Your task to perform on an android device: refresh tabs in the chrome app Image 0: 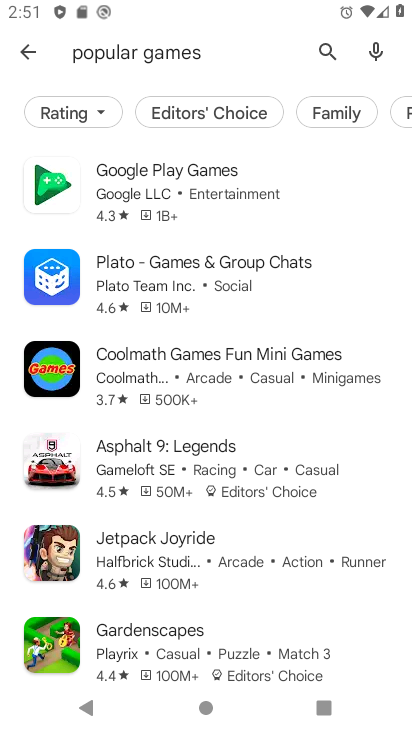
Step 0: press home button
Your task to perform on an android device: refresh tabs in the chrome app Image 1: 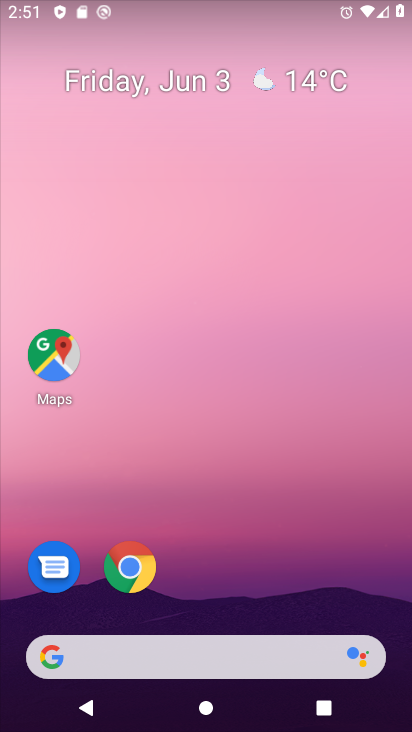
Step 1: drag from (221, 694) to (207, 181)
Your task to perform on an android device: refresh tabs in the chrome app Image 2: 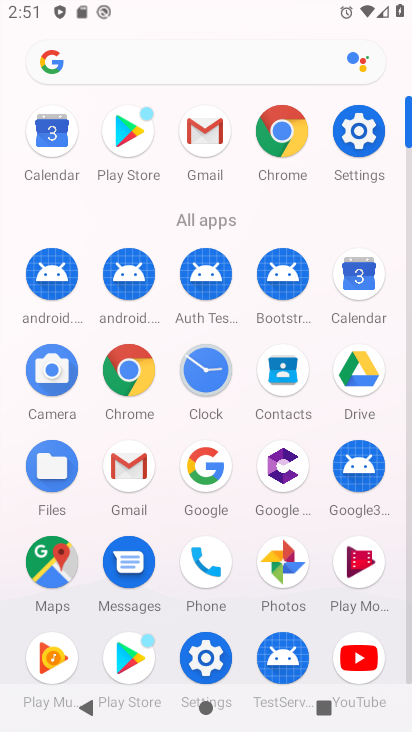
Step 2: click (269, 136)
Your task to perform on an android device: refresh tabs in the chrome app Image 3: 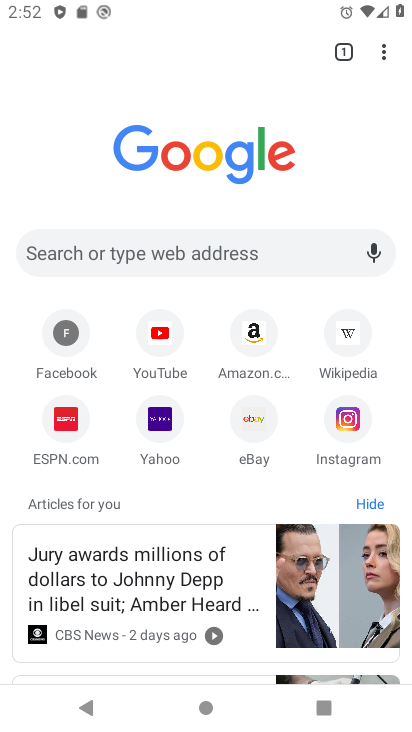
Step 3: click (379, 50)
Your task to perform on an android device: refresh tabs in the chrome app Image 4: 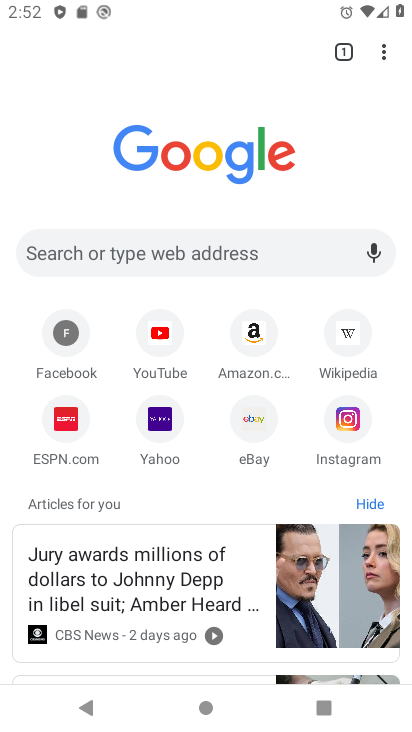
Step 4: task complete